Your task to perform on an android device: open a new tab in the chrome app Image 0: 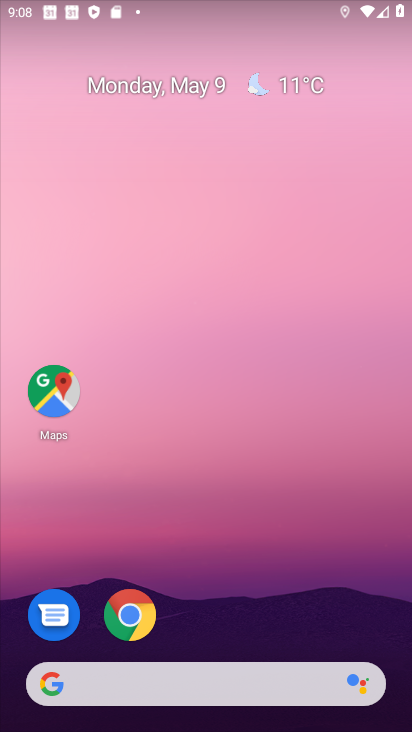
Step 0: drag from (249, 558) to (209, 8)
Your task to perform on an android device: open a new tab in the chrome app Image 1: 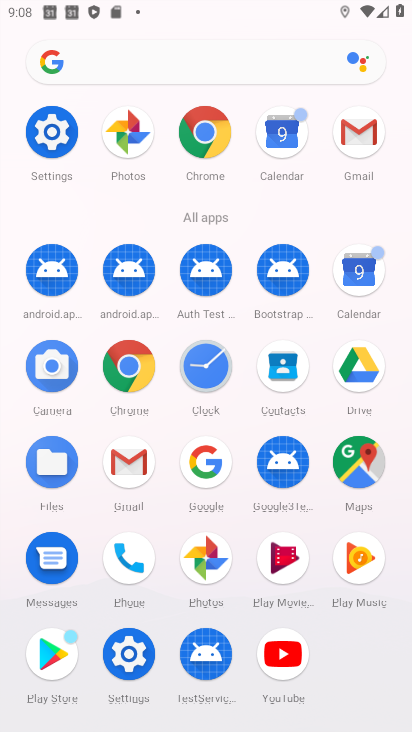
Step 1: click (128, 362)
Your task to perform on an android device: open a new tab in the chrome app Image 2: 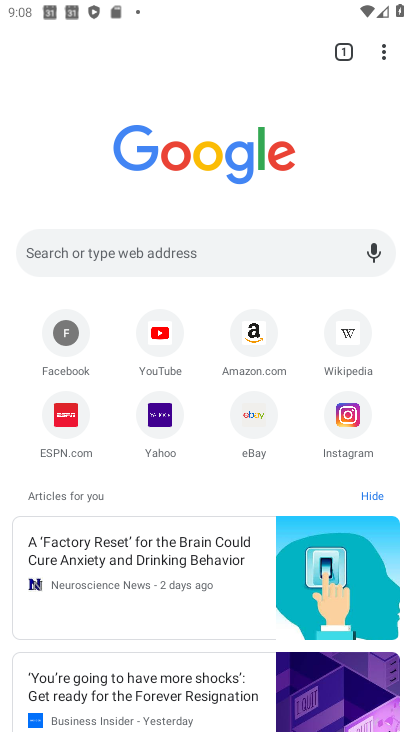
Step 2: task complete